Your task to perform on an android device: turn off smart reply in the gmail app Image 0: 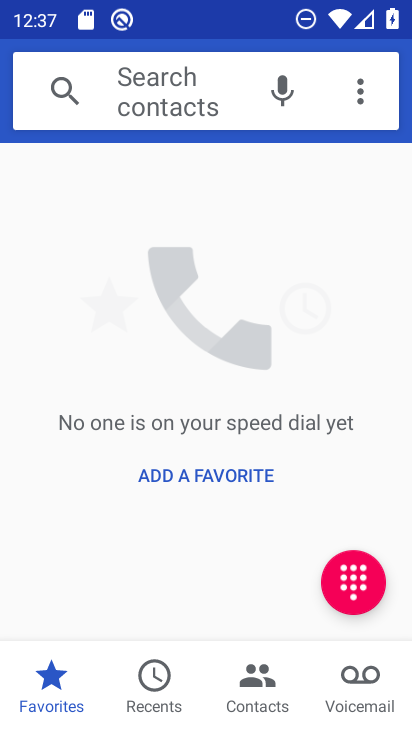
Step 0: press home button
Your task to perform on an android device: turn off smart reply in the gmail app Image 1: 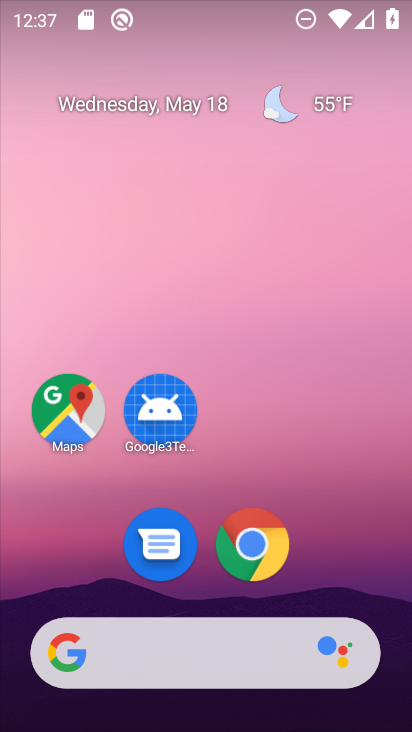
Step 1: drag from (214, 575) to (223, 80)
Your task to perform on an android device: turn off smart reply in the gmail app Image 2: 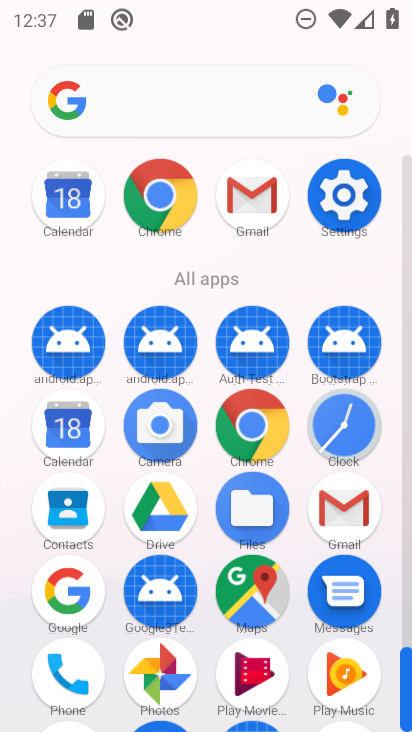
Step 2: click (348, 503)
Your task to perform on an android device: turn off smart reply in the gmail app Image 3: 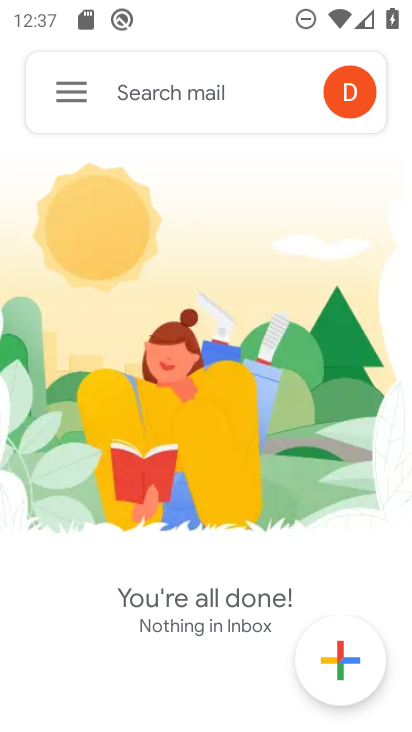
Step 3: click (65, 84)
Your task to perform on an android device: turn off smart reply in the gmail app Image 4: 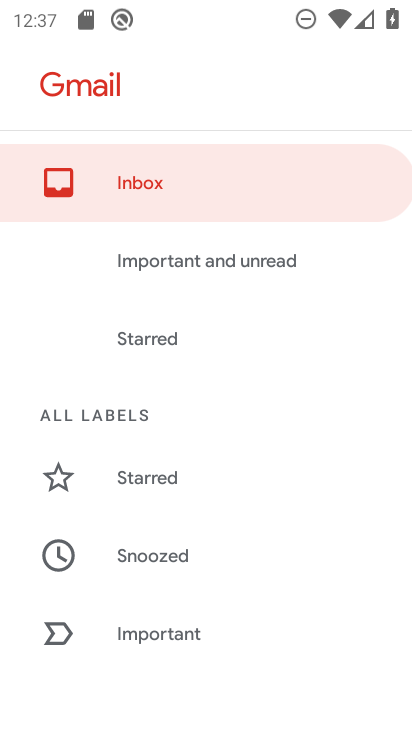
Step 4: drag from (143, 557) to (246, 191)
Your task to perform on an android device: turn off smart reply in the gmail app Image 5: 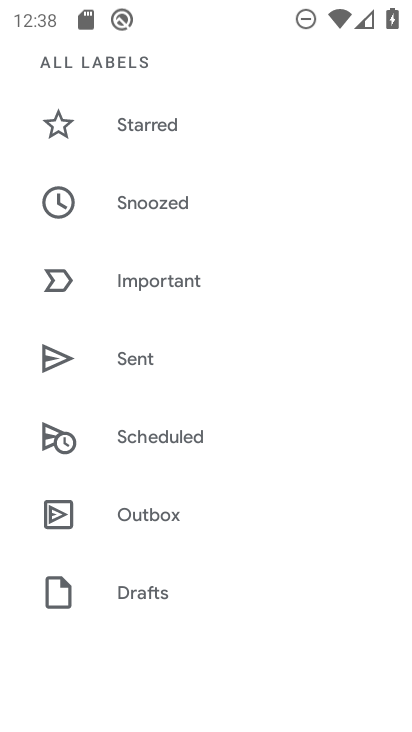
Step 5: drag from (179, 514) to (259, 112)
Your task to perform on an android device: turn off smart reply in the gmail app Image 6: 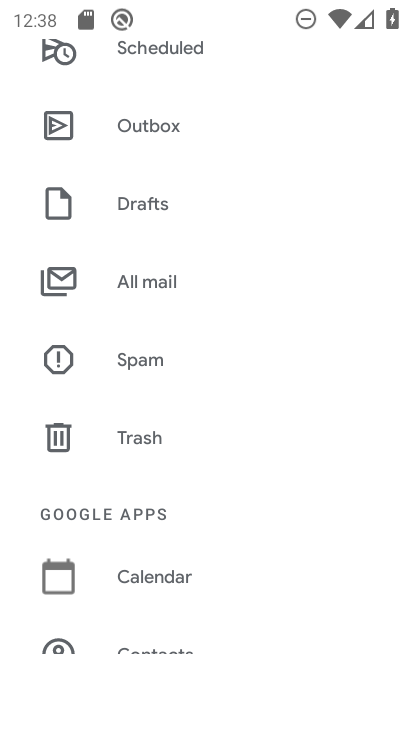
Step 6: drag from (166, 528) to (217, 212)
Your task to perform on an android device: turn off smart reply in the gmail app Image 7: 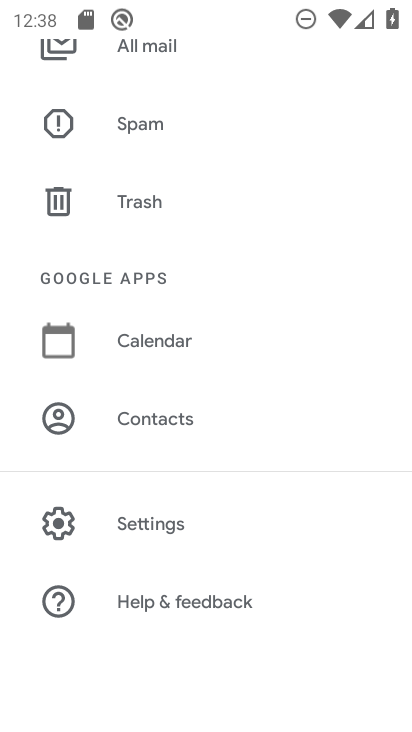
Step 7: click (163, 532)
Your task to perform on an android device: turn off smart reply in the gmail app Image 8: 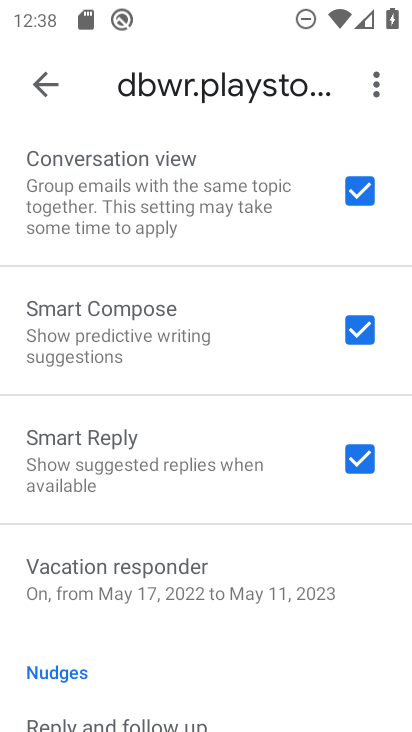
Step 8: drag from (156, 586) to (163, 545)
Your task to perform on an android device: turn off smart reply in the gmail app Image 9: 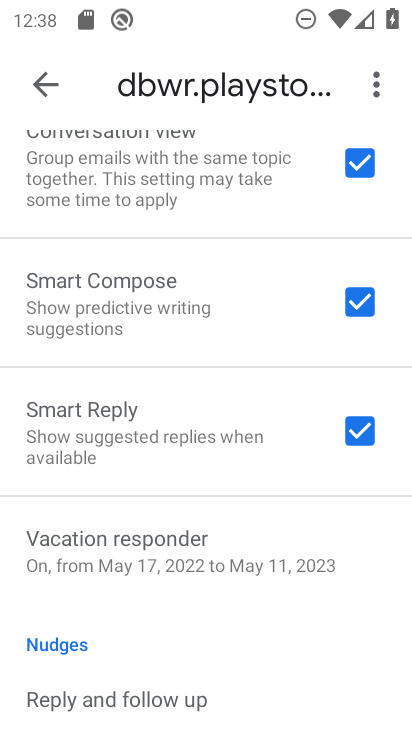
Step 9: click (344, 432)
Your task to perform on an android device: turn off smart reply in the gmail app Image 10: 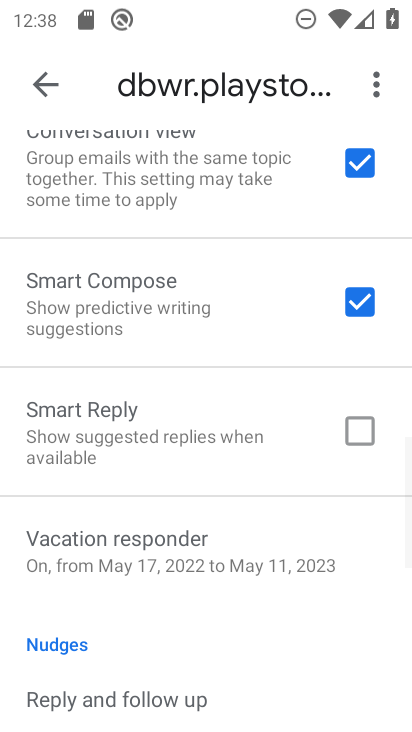
Step 10: task complete